Your task to perform on an android device: Open location settings Image 0: 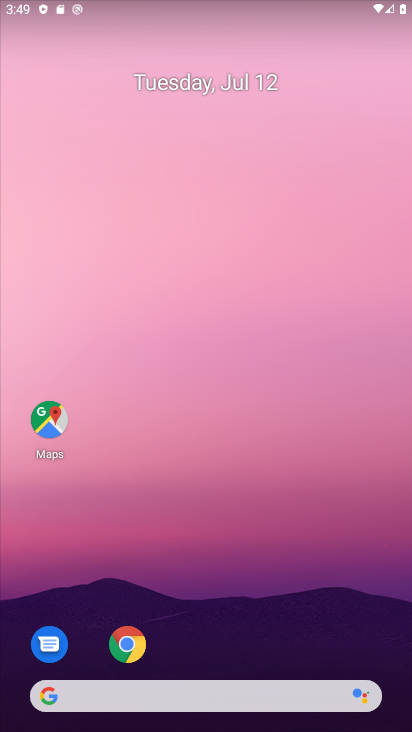
Step 0: drag from (184, 693) to (194, 40)
Your task to perform on an android device: Open location settings Image 1: 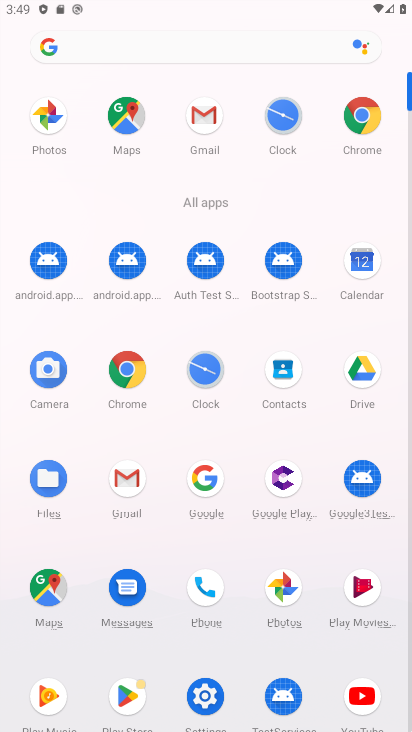
Step 1: click (208, 703)
Your task to perform on an android device: Open location settings Image 2: 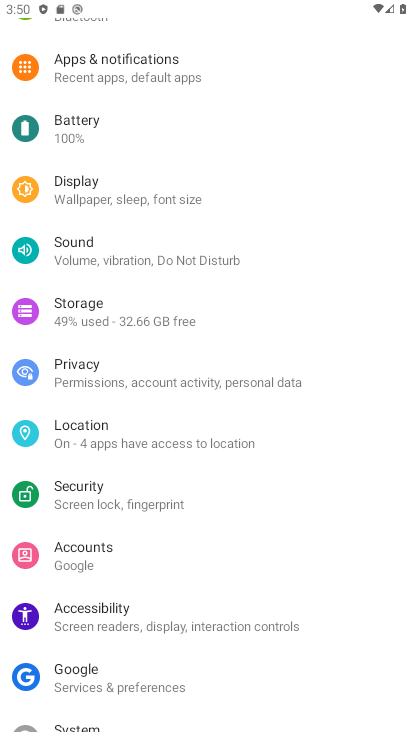
Step 2: click (121, 437)
Your task to perform on an android device: Open location settings Image 3: 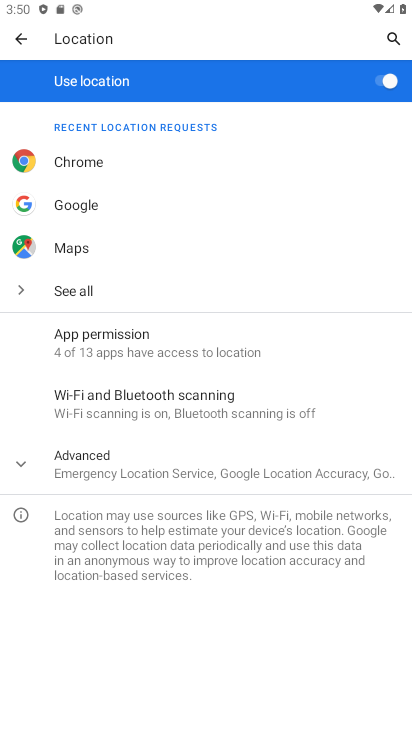
Step 3: task complete